Your task to perform on an android device: How do I get to the nearest Sprint Store? Image 0: 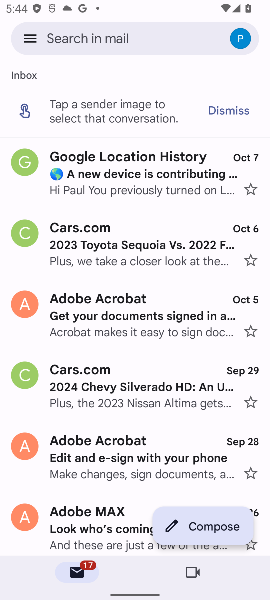
Step 0: press home button
Your task to perform on an android device: How do I get to the nearest Sprint Store? Image 1: 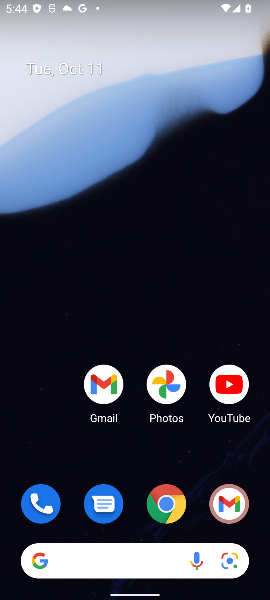
Step 1: click (167, 566)
Your task to perform on an android device: How do I get to the nearest Sprint Store? Image 2: 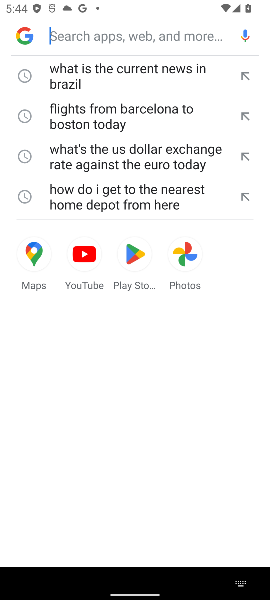
Step 2: click (88, 37)
Your task to perform on an android device: How do I get to the nearest Sprint Store? Image 3: 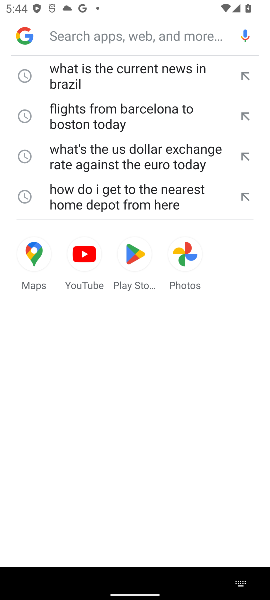
Step 3: type "How do I get to the nearest Sprint Store?"
Your task to perform on an android device: How do I get to the nearest Sprint Store? Image 4: 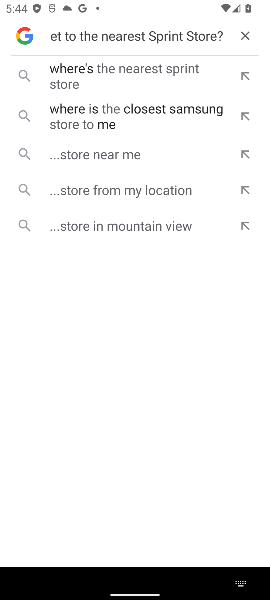
Step 4: click (131, 81)
Your task to perform on an android device: How do I get to the nearest Sprint Store? Image 5: 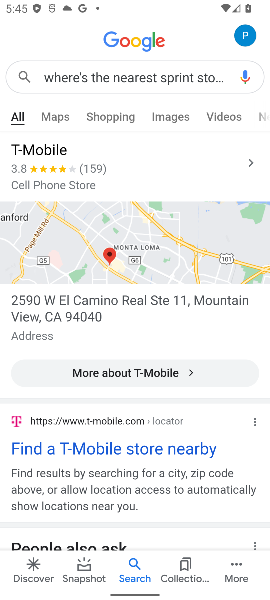
Step 5: task complete